Your task to perform on an android device: delete a single message in the gmail app Image 0: 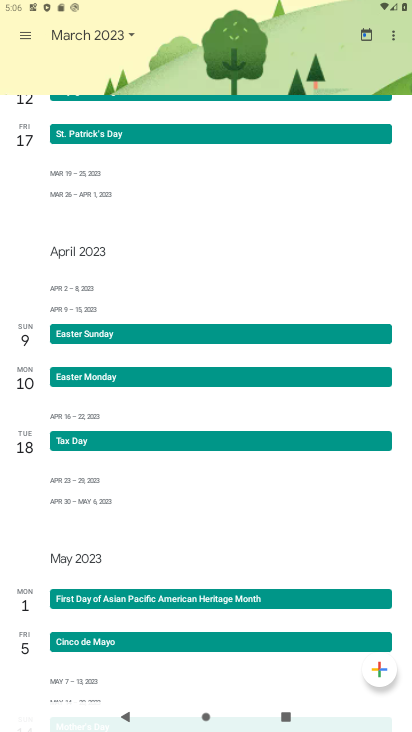
Step 0: press home button
Your task to perform on an android device: delete a single message in the gmail app Image 1: 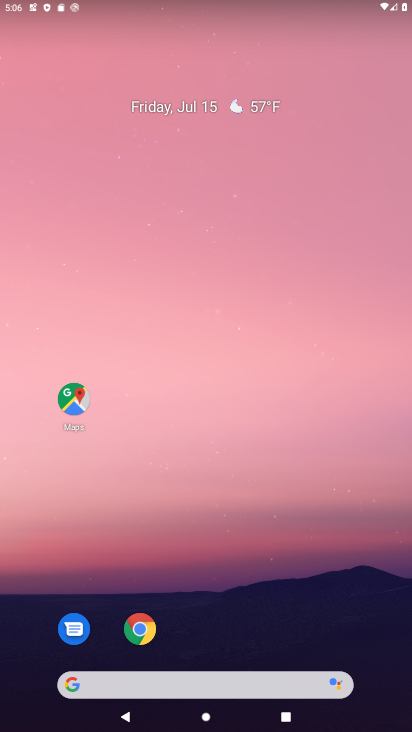
Step 1: drag from (216, 585) to (240, 141)
Your task to perform on an android device: delete a single message in the gmail app Image 2: 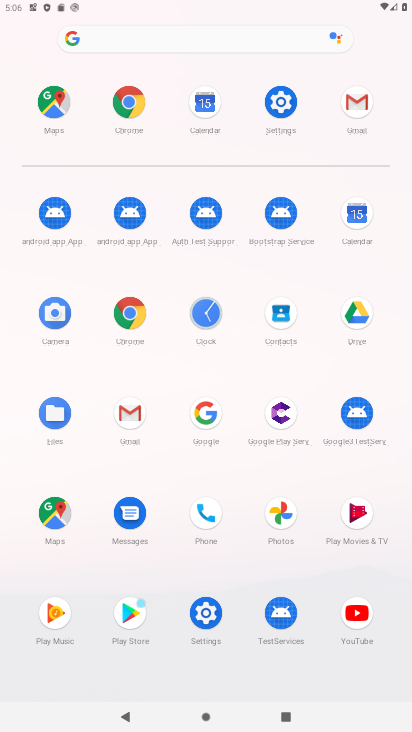
Step 2: click (358, 102)
Your task to perform on an android device: delete a single message in the gmail app Image 3: 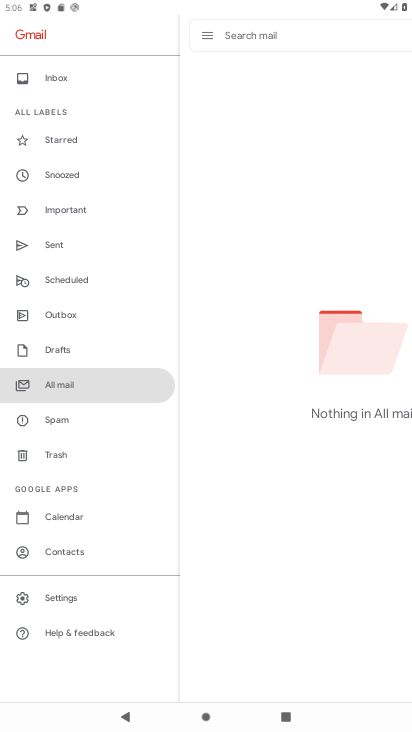
Step 3: task complete